Your task to perform on an android device: open app "Lyft - Rideshare, Bikes, Scooters & Transit" Image 0: 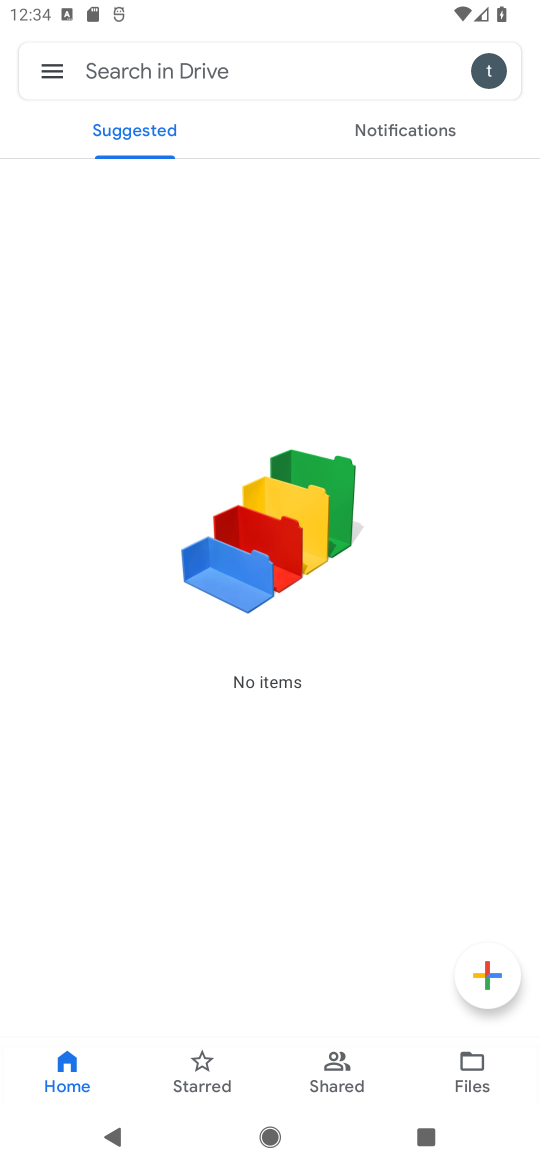
Step 0: press home button
Your task to perform on an android device: open app "Lyft - Rideshare, Bikes, Scooters & Transit" Image 1: 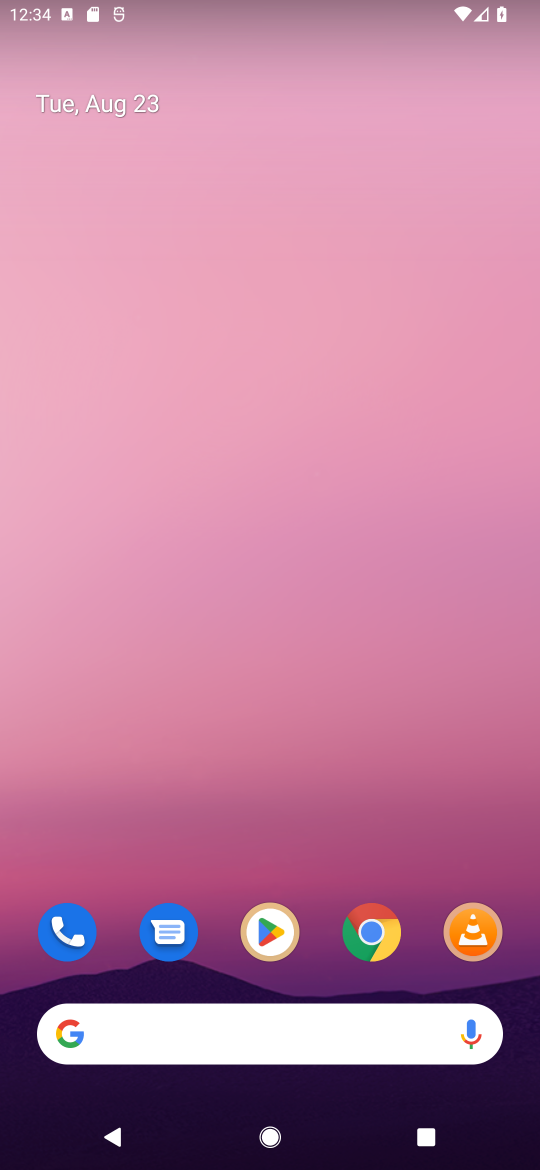
Step 1: click (259, 923)
Your task to perform on an android device: open app "Lyft - Rideshare, Bikes, Scooters & Transit" Image 2: 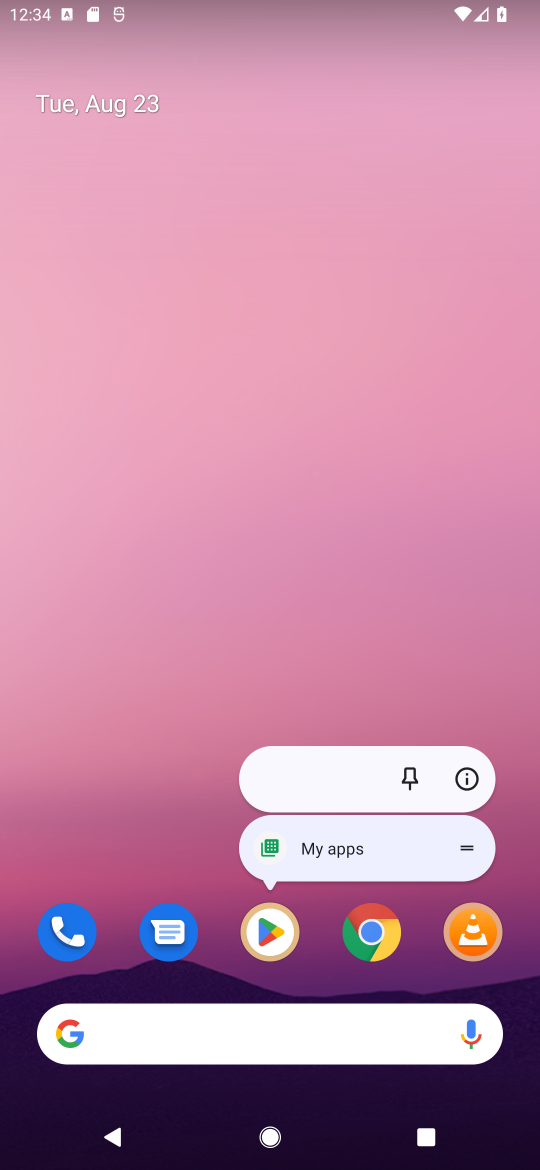
Step 2: click (289, 938)
Your task to perform on an android device: open app "Lyft - Rideshare, Bikes, Scooters & Transit" Image 3: 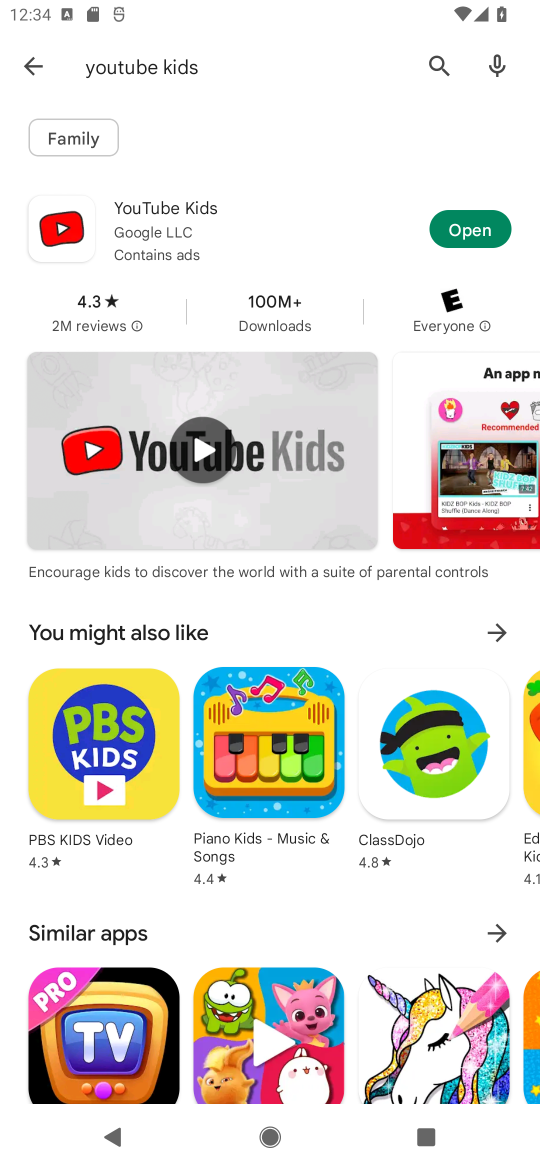
Step 3: click (431, 76)
Your task to perform on an android device: open app "Lyft - Rideshare, Bikes, Scooters & Transit" Image 4: 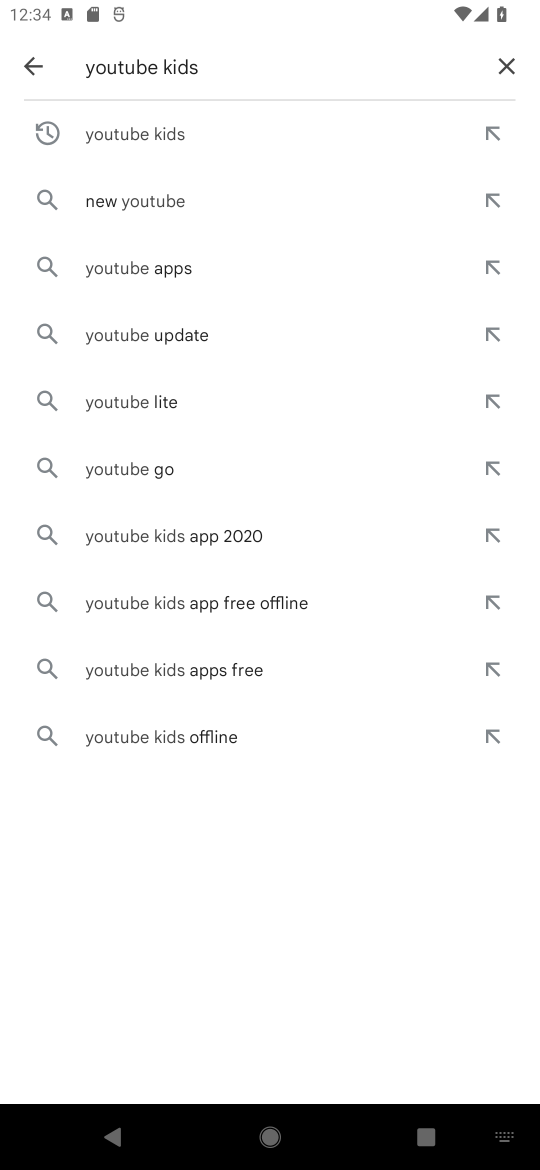
Step 4: click (500, 50)
Your task to perform on an android device: open app "Lyft - Rideshare, Bikes, Scooters & Transit" Image 5: 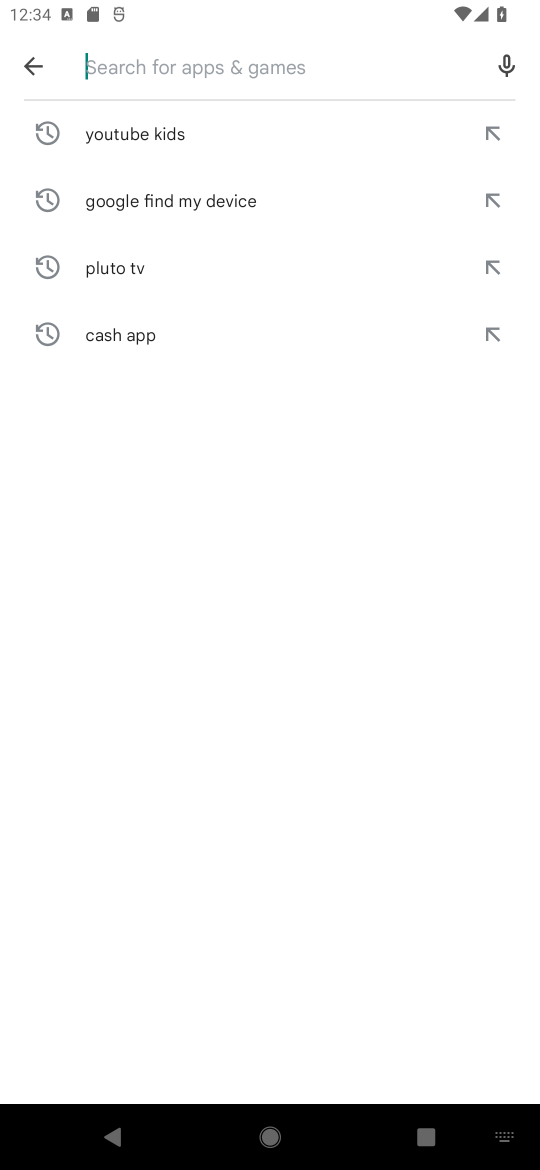
Step 5: click (224, 42)
Your task to perform on an android device: open app "Lyft - Rideshare, Bikes, Scooters & Transit" Image 6: 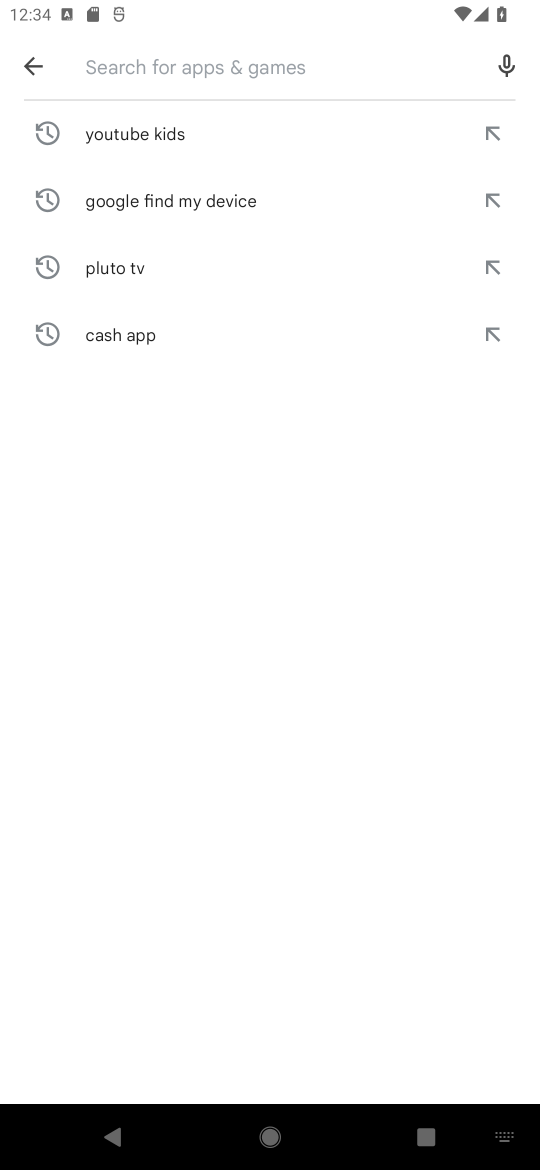
Step 6: type "Lyft"
Your task to perform on an android device: open app "Lyft - Rideshare, Bikes, Scooters & Transit" Image 7: 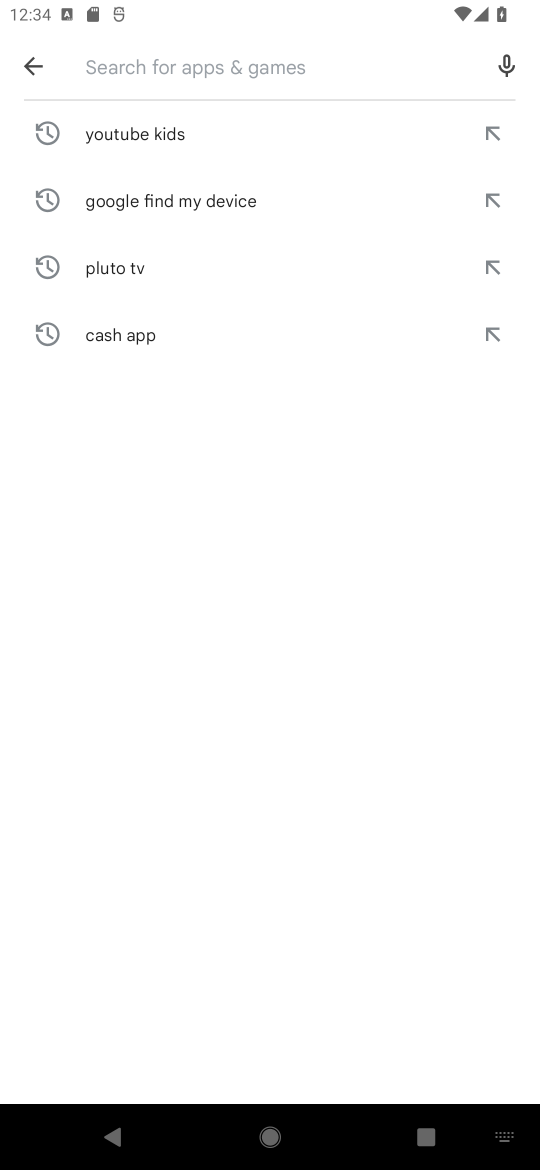
Step 7: click (293, 828)
Your task to perform on an android device: open app "Lyft - Rideshare, Bikes, Scooters & Transit" Image 8: 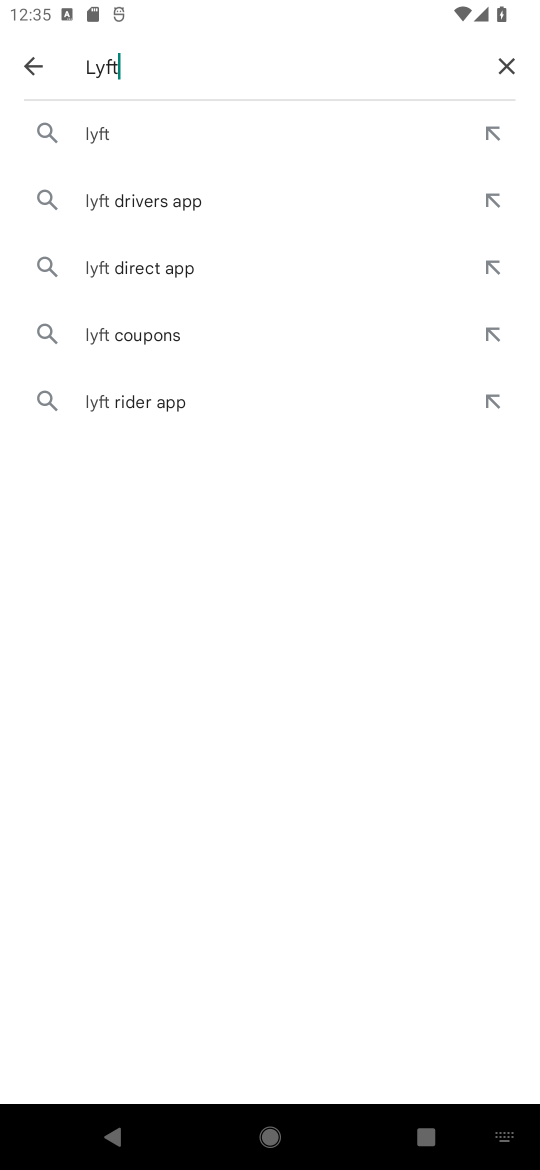
Step 8: click (125, 131)
Your task to perform on an android device: open app "Lyft - Rideshare, Bikes, Scooters & Transit" Image 9: 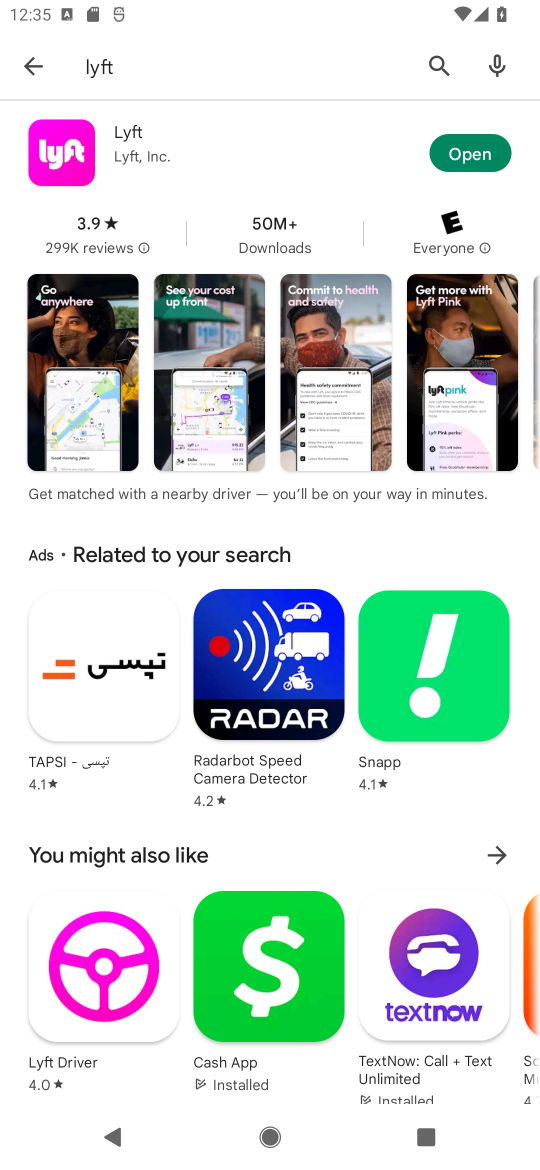
Step 9: click (465, 154)
Your task to perform on an android device: open app "Lyft - Rideshare, Bikes, Scooters & Transit" Image 10: 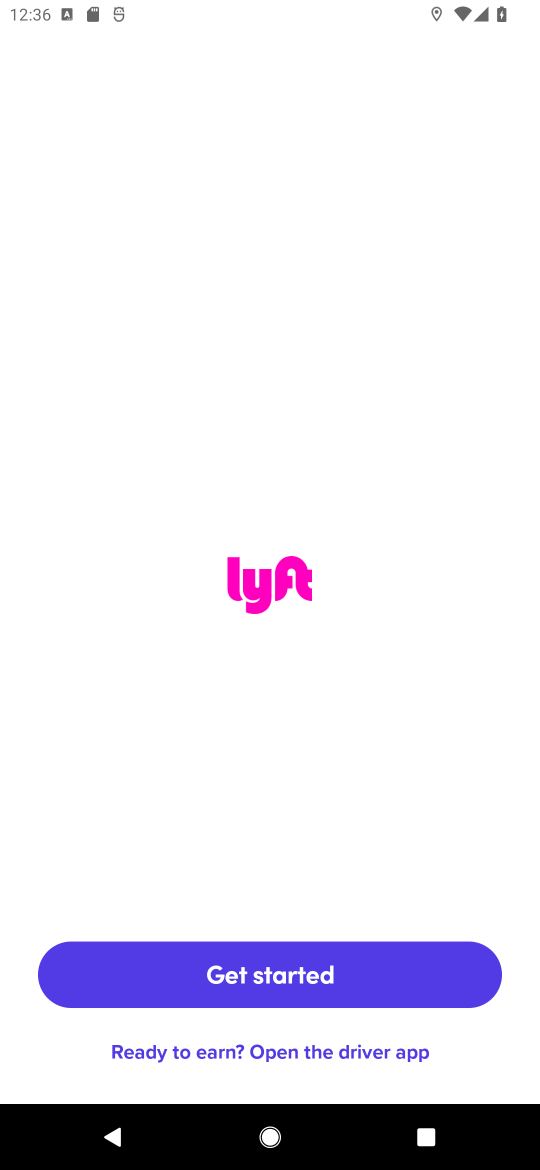
Step 10: task complete